Your task to perform on an android device: toggle improve location accuracy Image 0: 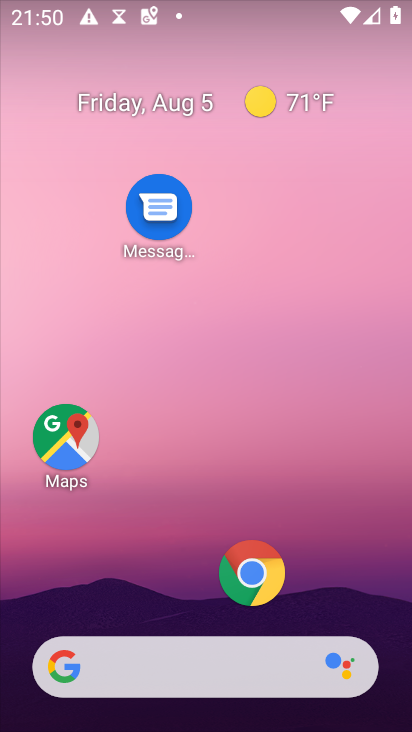
Step 0: press home button
Your task to perform on an android device: toggle improve location accuracy Image 1: 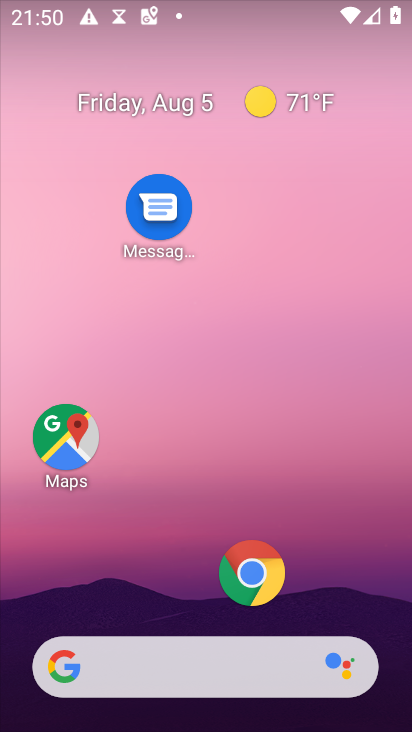
Step 1: drag from (201, 614) to (236, 96)
Your task to perform on an android device: toggle improve location accuracy Image 2: 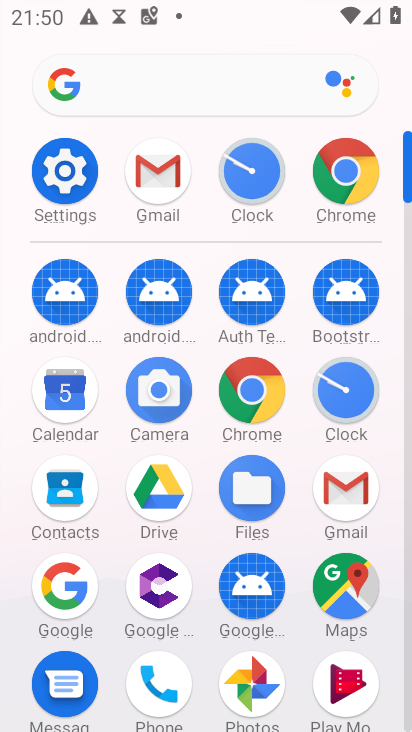
Step 2: click (62, 164)
Your task to perform on an android device: toggle improve location accuracy Image 3: 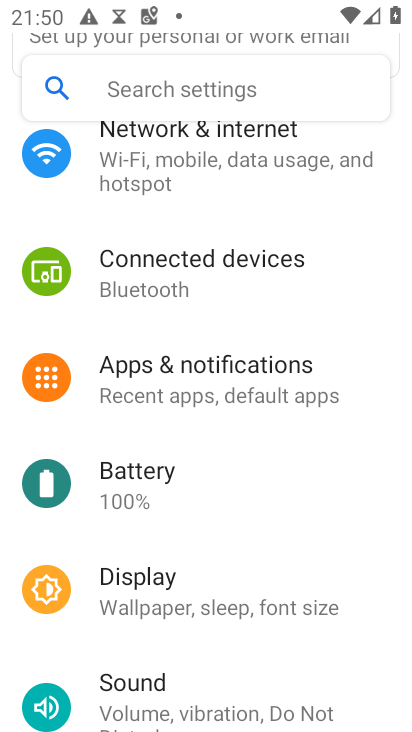
Step 3: drag from (212, 673) to (228, 138)
Your task to perform on an android device: toggle improve location accuracy Image 4: 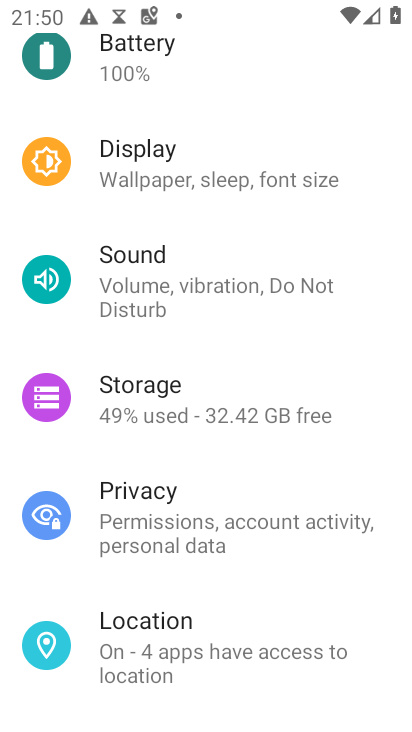
Step 4: click (211, 626)
Your task to perform on an android device: toggle improve location accuracy Image 5: 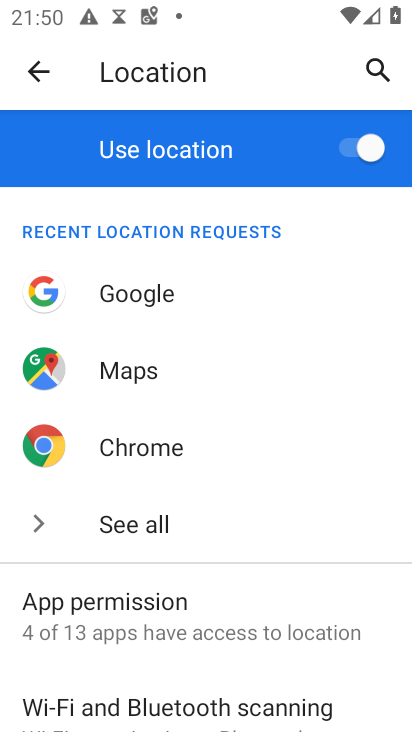
Step 5: drag from (220, 669) to (239, 178)
Your task to perform on an android device: toggle improve location accuracy Image 6: 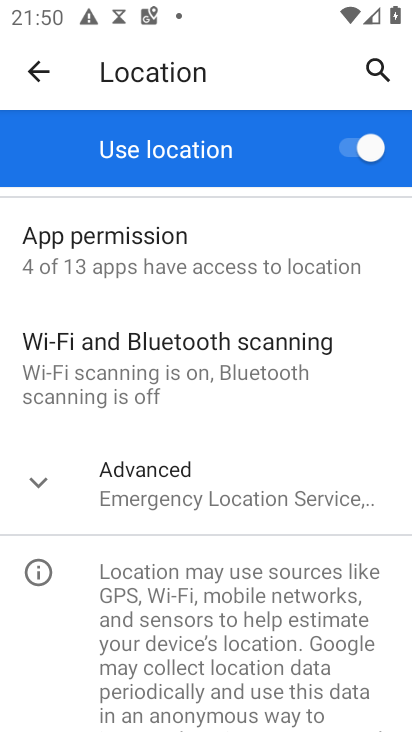
Step 6: click (39, 472)
Your task to perform on an android device: toggle improve location accuracy Image 7: 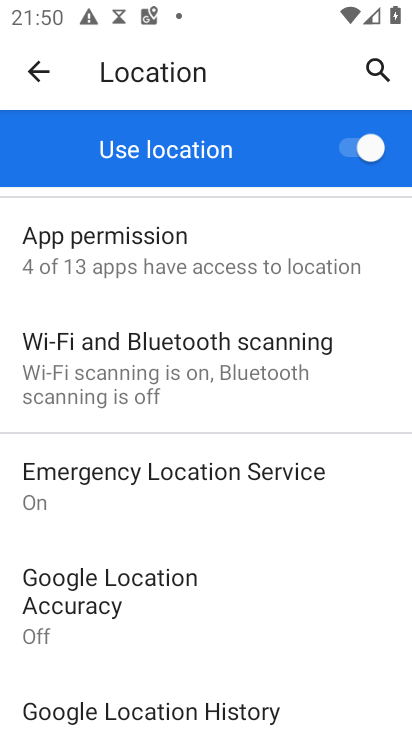
Step 7: click (134, 601)
Your task to perform on an android device: toggle improve location accuracy Image 8: 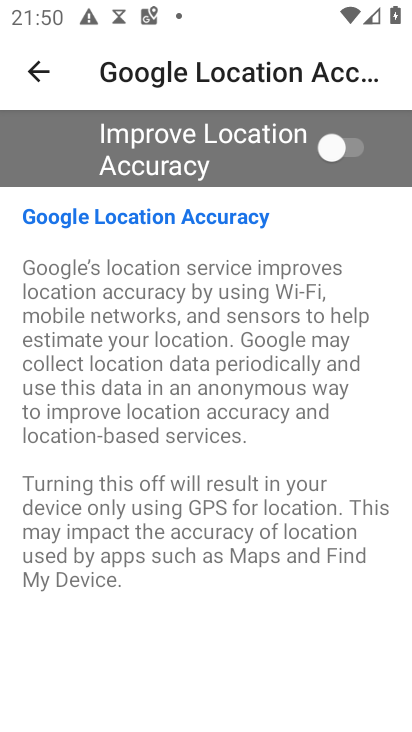
Step 8: click (349, 144)
Your task to perform on an android device: toggle improve location accuracy Image 9: 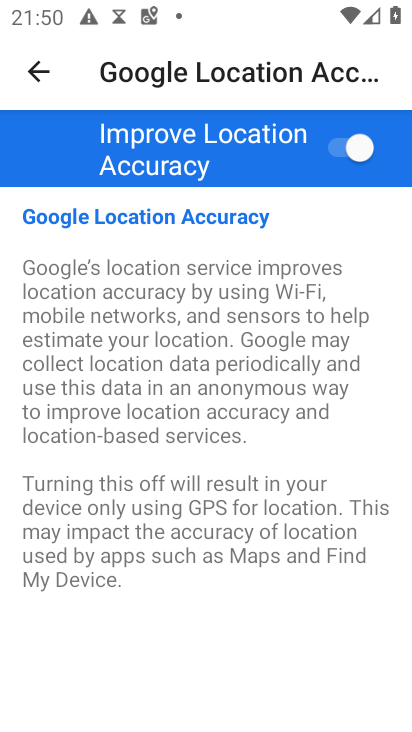
Step 9: task complete